Your task to perform on an android device: toggle translation in the chrome app Image 0: 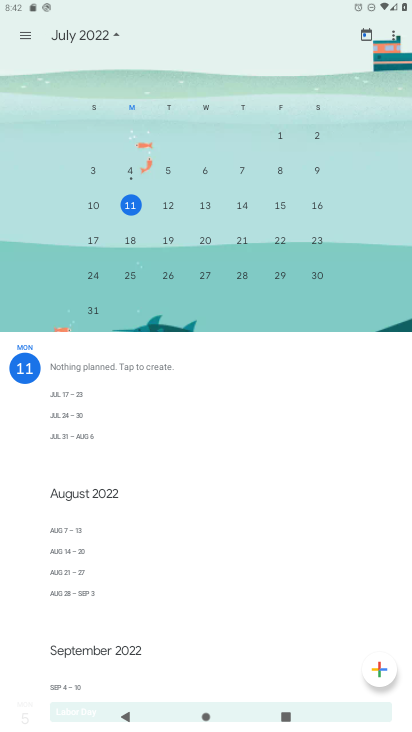
Step 0: press home button
Your task to perform on an android device: toggle translation in the chrome app Image 1: 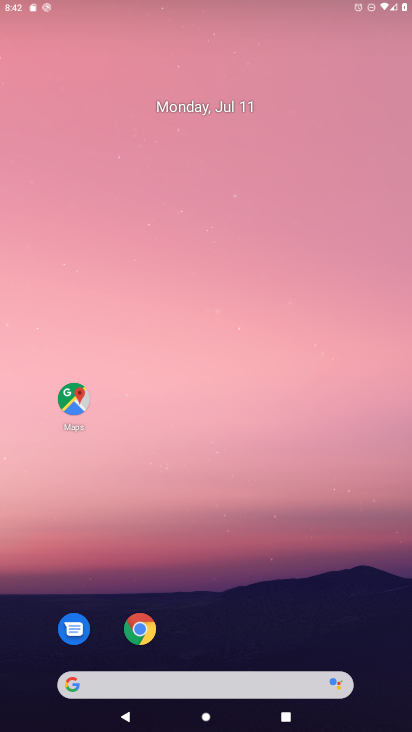
Step 1: drag from (222, 584) to (260, 115)
Your task to perform on an android device: toggle translation in the chrome app Image 2: 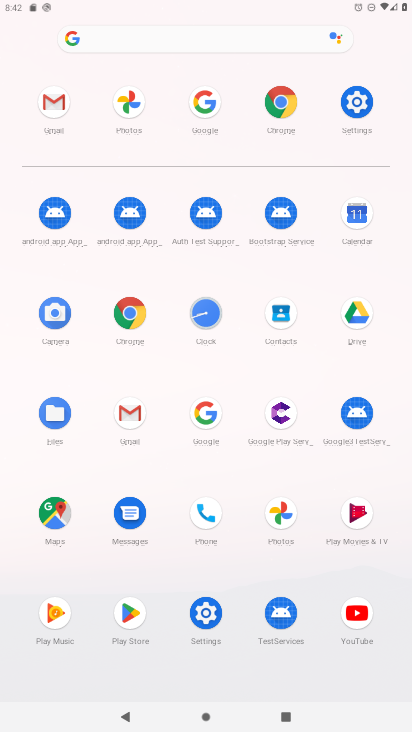
Step 2: click (128, 313)
Your task to perform on an android device: toggle translation in the chrome app Image 3: 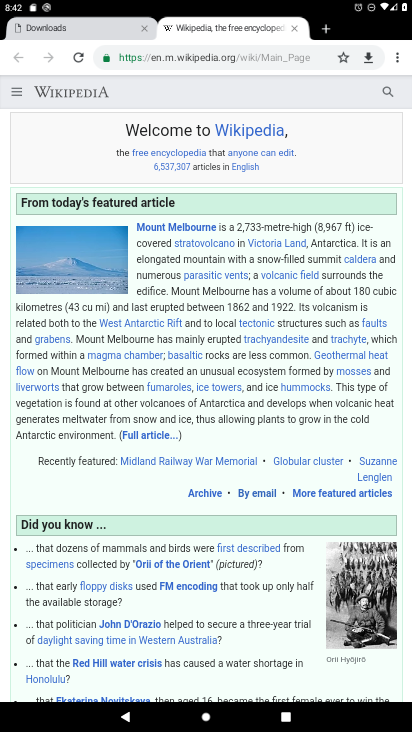
Step 3: click (394, 55)
Your task to perform on an android device: toggle translation in the chrome app Image 4: 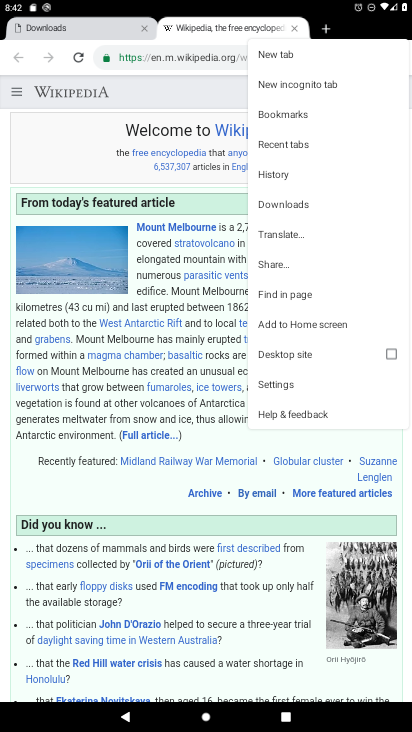
Step 4: click (284, 388)
Your task to perform on an android device: toggle translation in the chrome app Image 5: 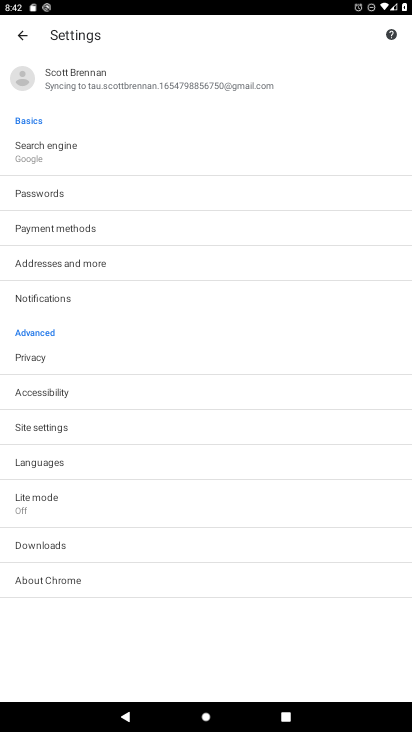
Step 5: click (52, 461)
Your task to perform on an android device: toggle translation in the chrome app Image 6: 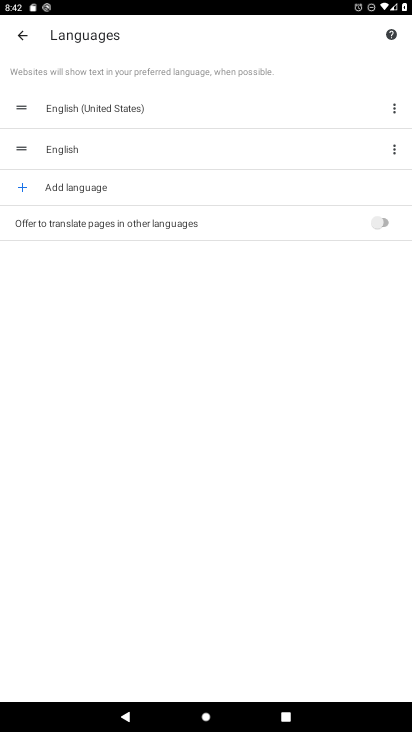
Step 6: click (381, 223)
Your task to perform on an android device: toggle translation in the chrome app Image 7: 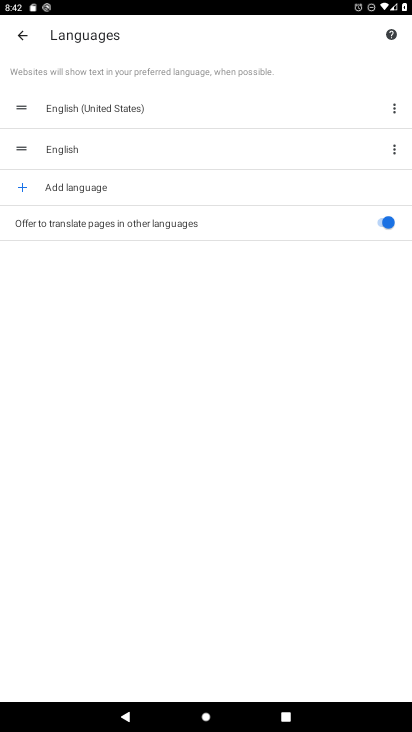
Step 7: task complete